Your task to perform on an android device: When is my next meeting? Image 0: 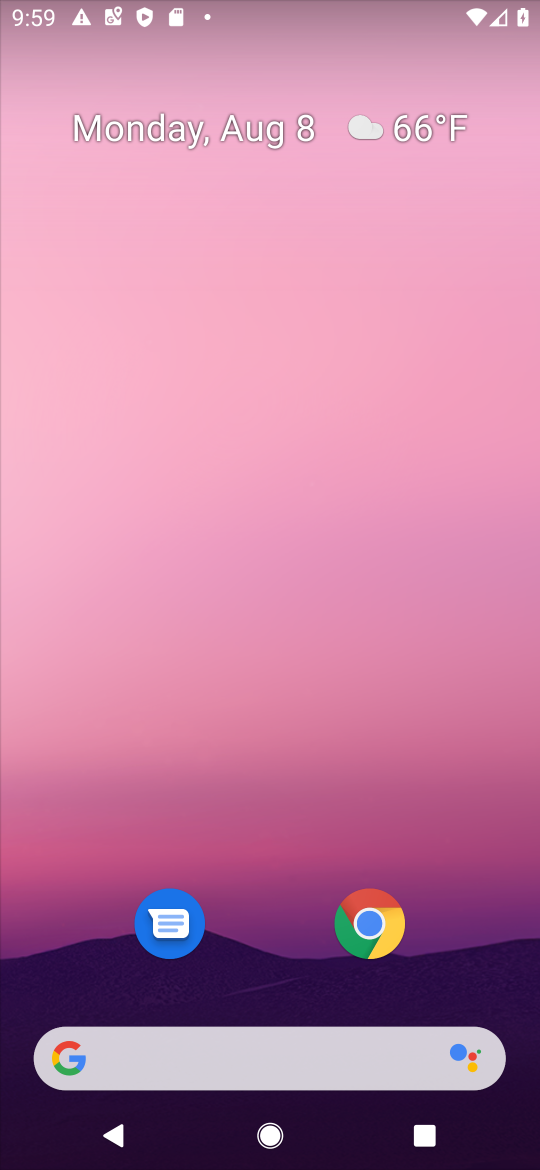
Step 0: drag from (49, 1132) to (344, 37)
Your task to perform on an android device: When is my next meeting? Image 1: 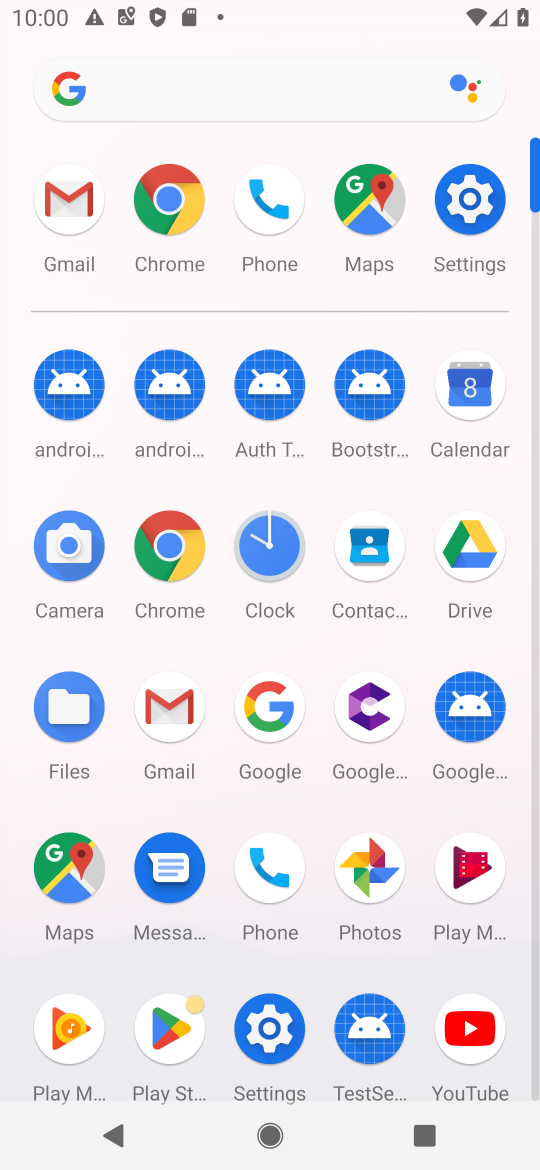
Step 1: click (456, 421)
Your task to perform on an android device: When is my next meeting? Image 2: 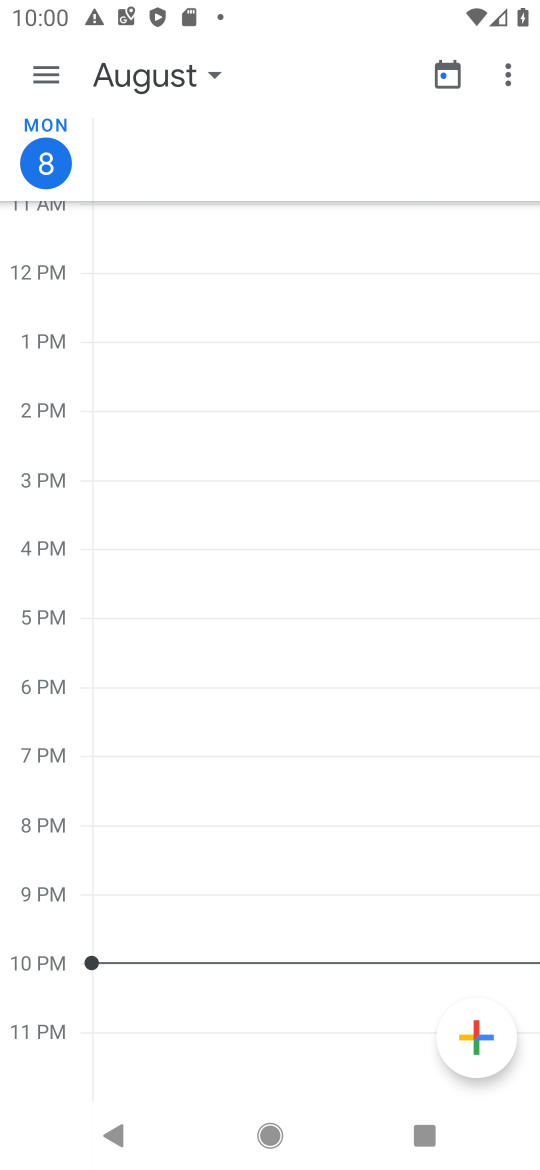
Step 2: click (190, 71)
Your task to perform on an android device: When is my next meeting? Image 3: 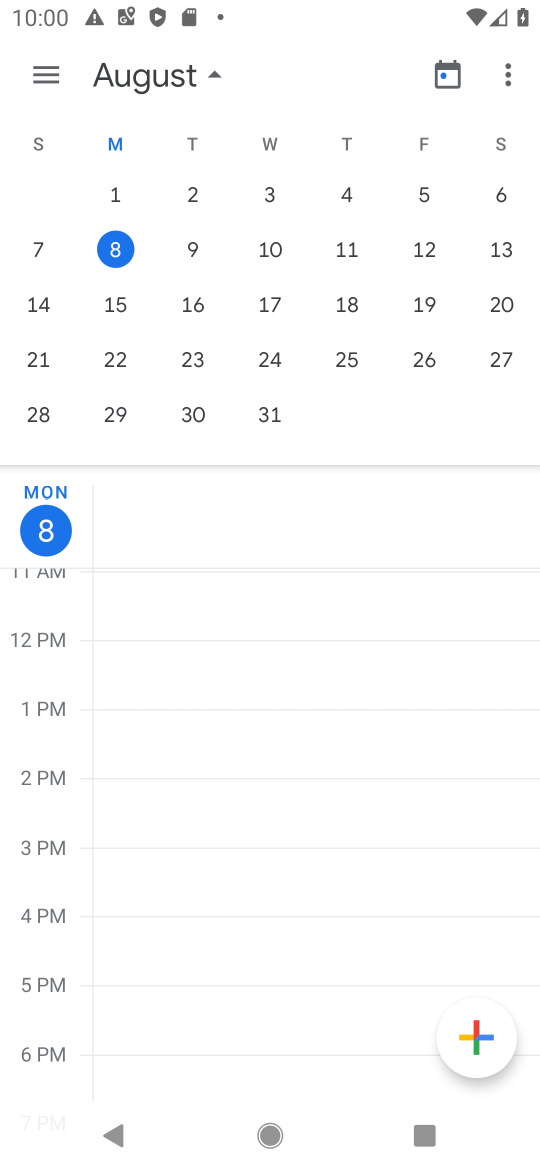
Step 3: task complete